Your task to perform on an android device: find snoozed emails in the gmail app Image 0: 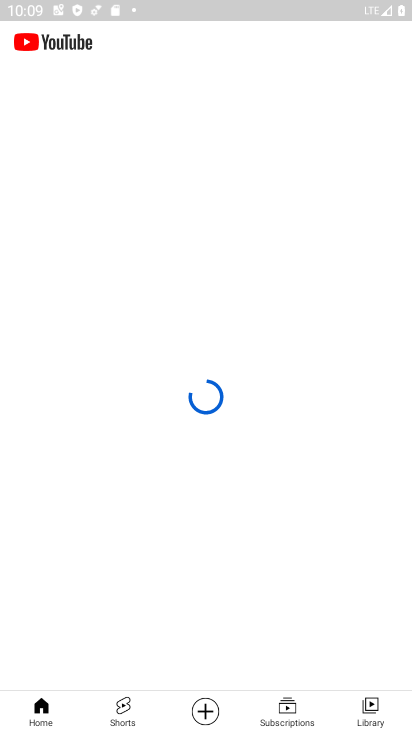
Step 0: click (323, 0)
Your task to perform on an android device: find snoozed emails in the gmail app Image 1: 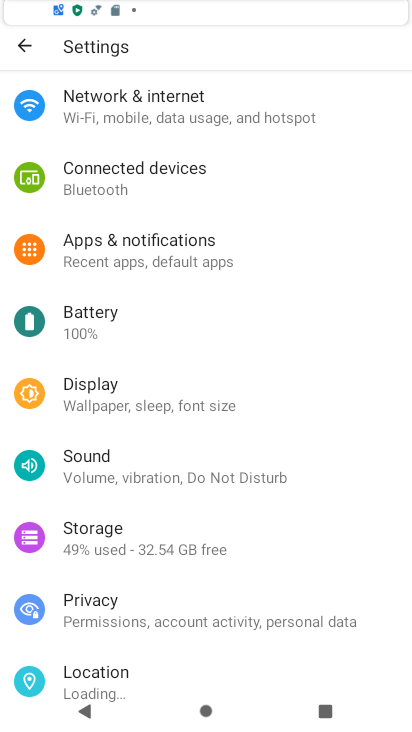
Step 1: press home button
Your task to perform on an android device: find snoozed emails in the gmail app Image 2: 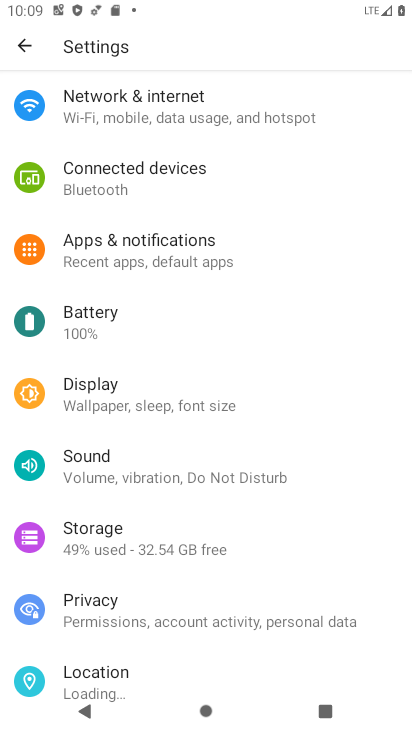
Step 2: drag from (323, 0) to (39, 26)
Your task to perform on an android device: find snoozed emails in the gmail app Image 3: 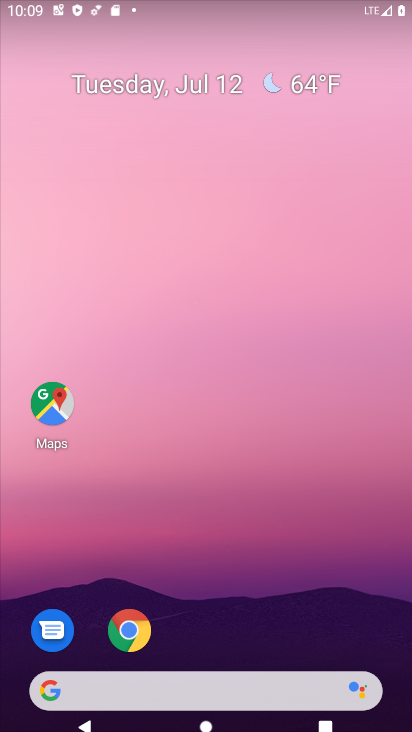
Step 3: drag from (297, 592) to (349, 48)
Your task to perform on an android device: find snoozed emails in the gmail app Image 4: 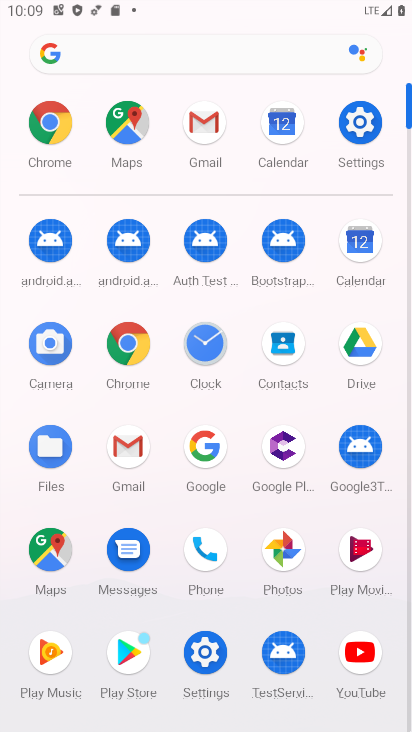
Step 4: click (187, 131)
Your task to perform on an android device: find snoozed emails in the gmail app Image 5: 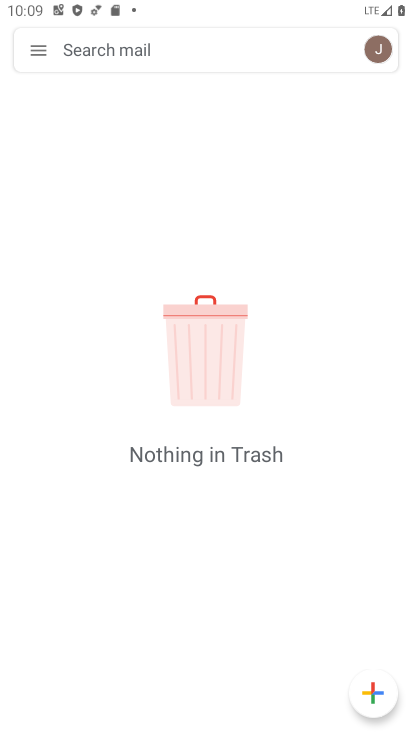
Step 5: click (41, 50)
Your task to perform on an android device: find snoozed emails in the gmail app Image 6: 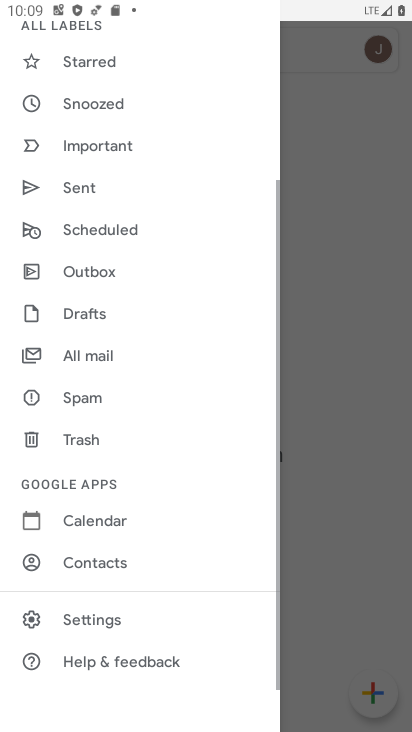
Step 6: click (81, 103)
Your task to perform on an android device: find snoozed emails in the gmail app Image 7: 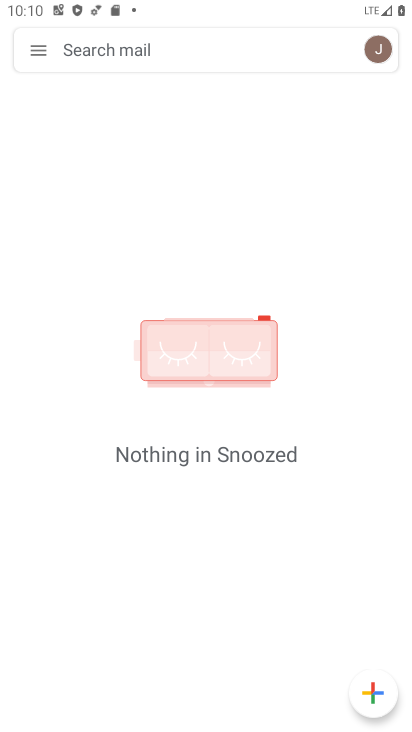
Step 7: task complete